Your task to perform on an android device: Search for "logitech g502" on newegg, select the first entry, and add it to the cart. Image 0: 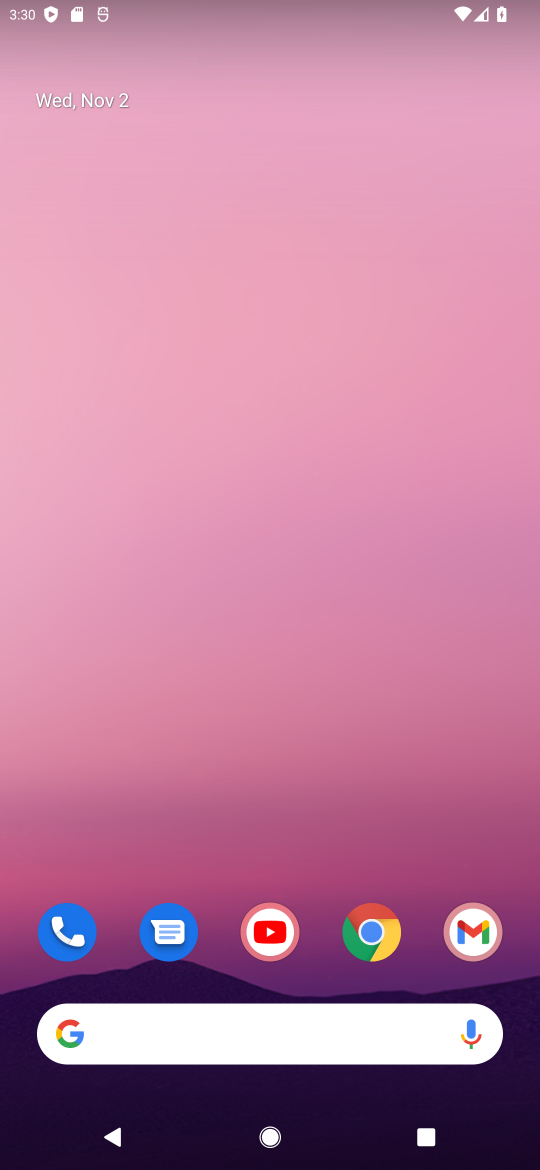
Step 0: click (372, 925)
Your task to perform on an android device: Search for "logitech g502" on newegg, select the first entry, and add it to the cart. Image 1: 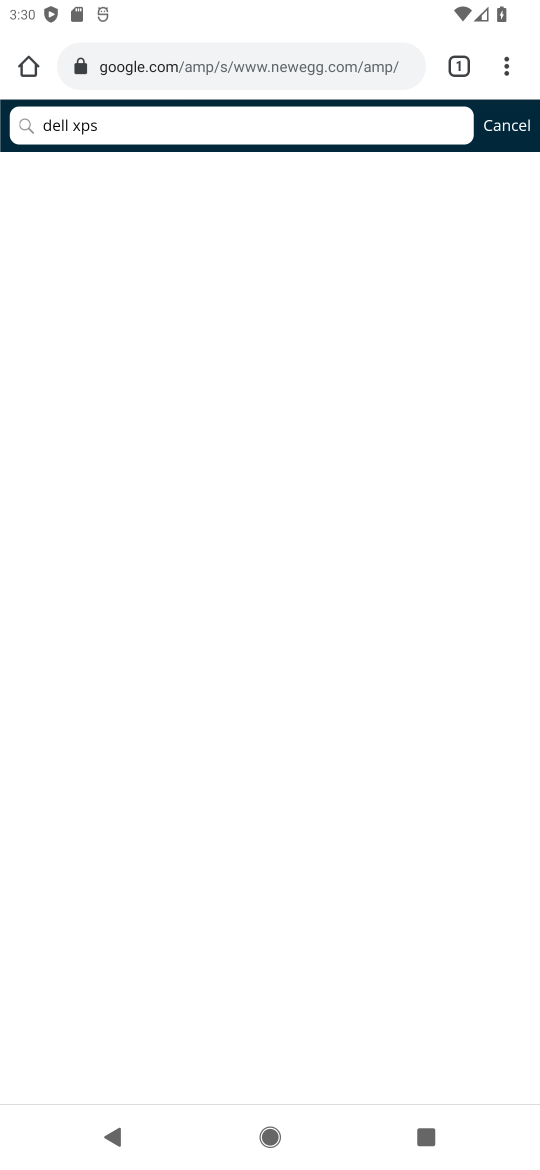
Step 1: click (507, 128)
Your task to perform on an android device: Search for "logitech g502" on newegg, select the first entry, and add it to the cart. Image 2: 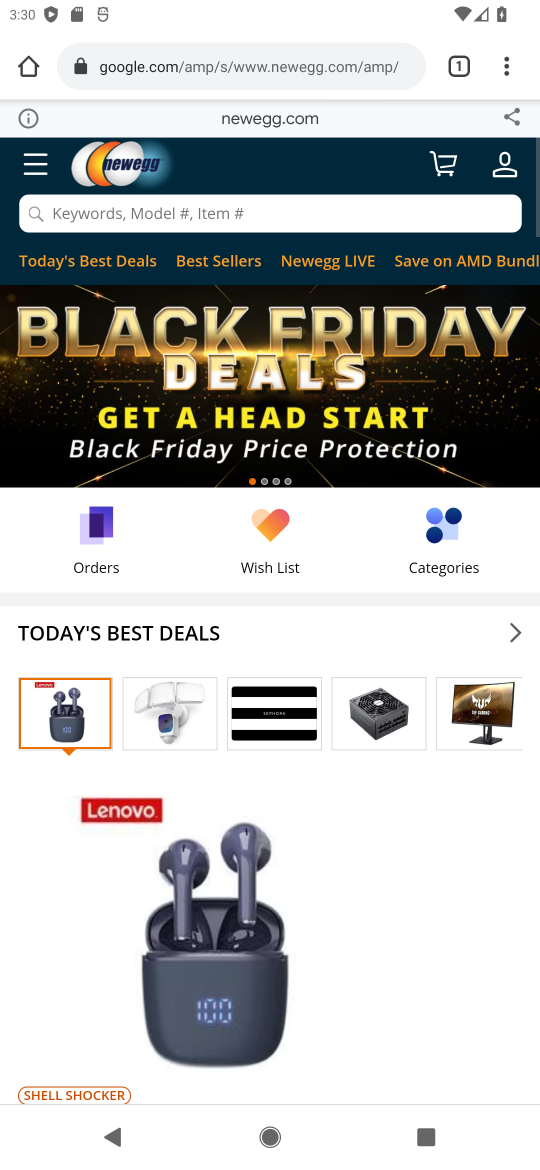
Step 2: click (349, 212)
Your task to perform on an android device: Search for "logitech g502" on newegg, select the first entry, and add it to the cart. Image 3: 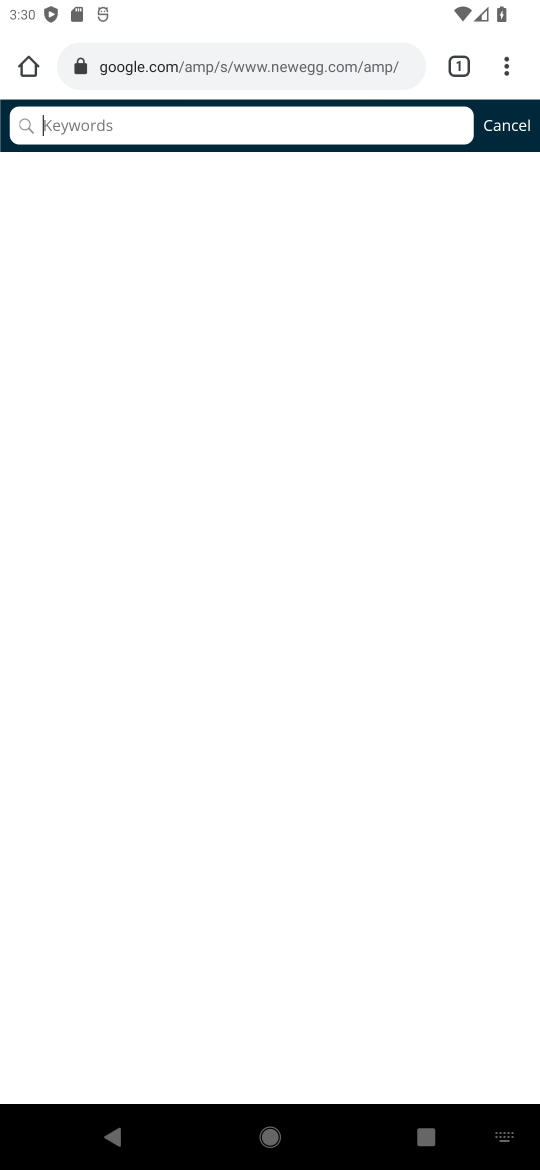
Step 3: type "logitech g502"
Your task to perform on an android device: Search for "logitech g502" on newegg, select the first entry, and add it to the cart. Image 4: 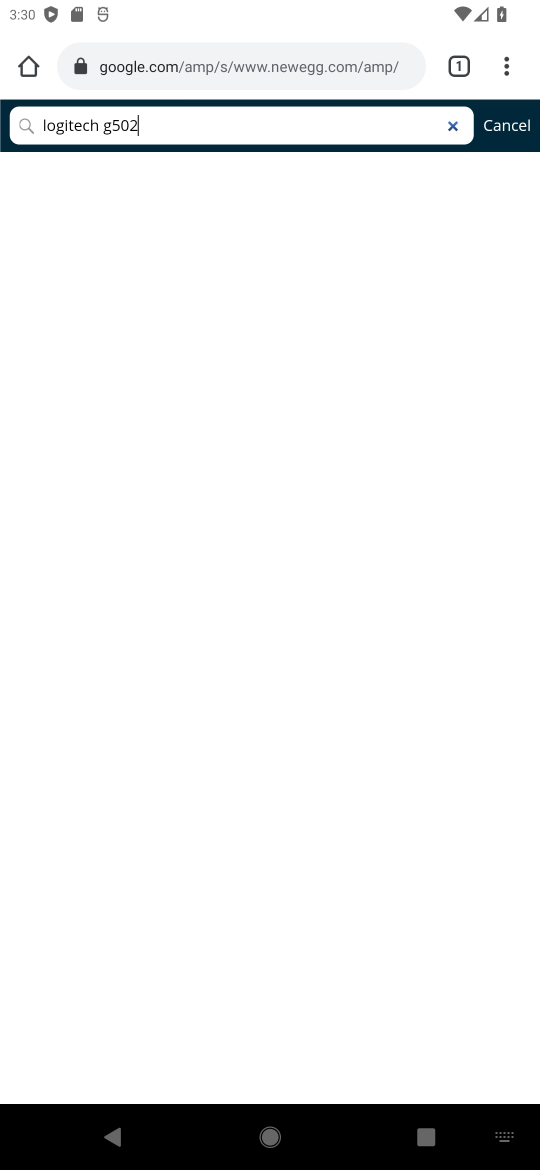
Step 4: press enter
Your task to perform on an android device: Search for "logitech g502" on newegg, select the first entry, and add it to the cart. Image 5: 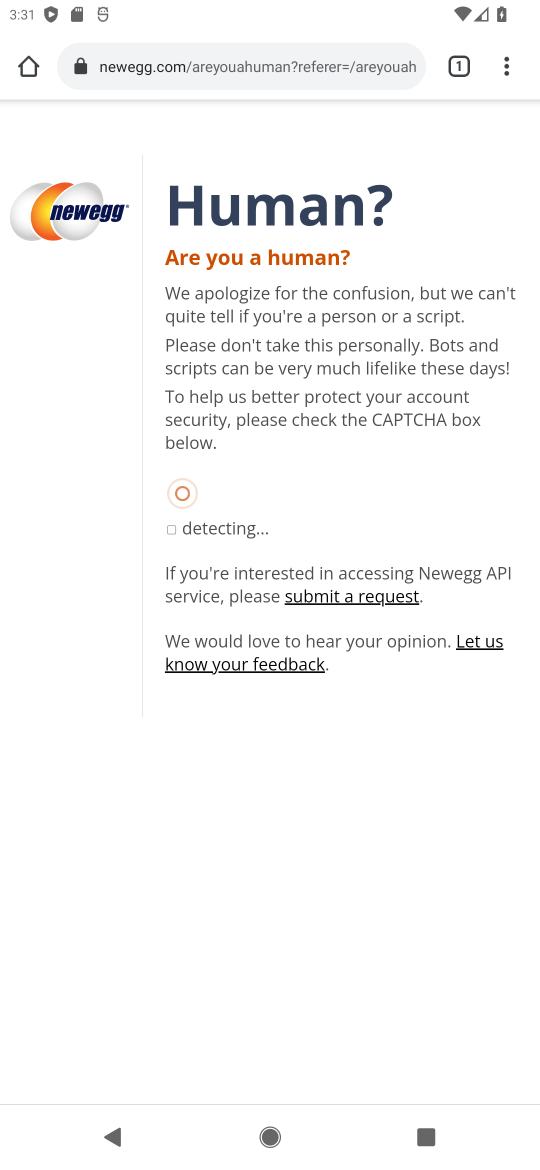
Step 5: press back button
Your task to perform on an android device: Search for "logitech g502" on newegg, select the first entry, and add it to the cart. Image 6: 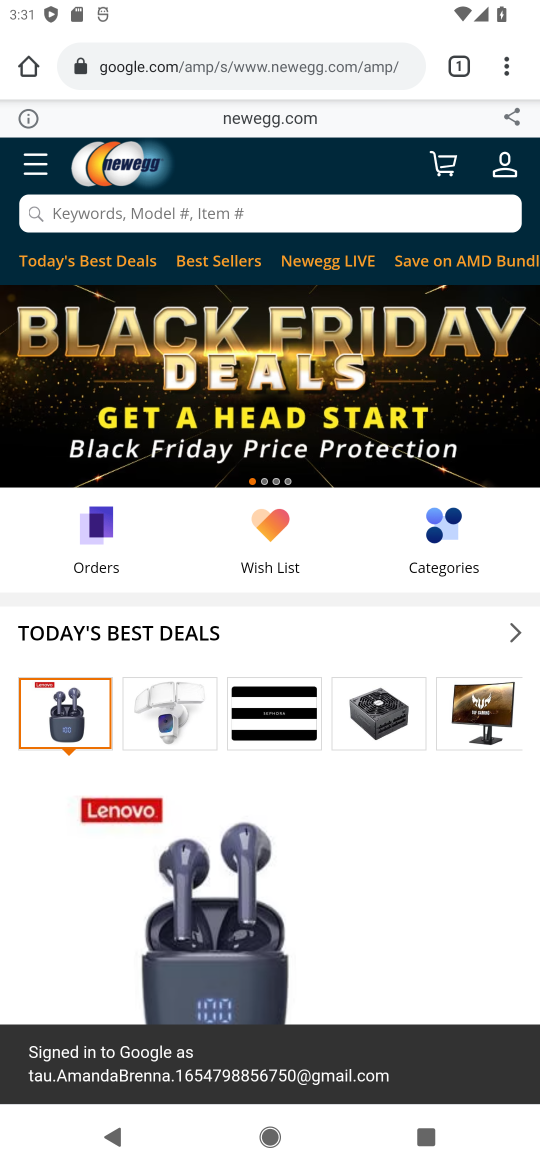
Step 6: click (345, 213)
Your task to perform on an android device: Search for "logitech g502" on newegg, select the first entry, and add it to the cart. Image 7: 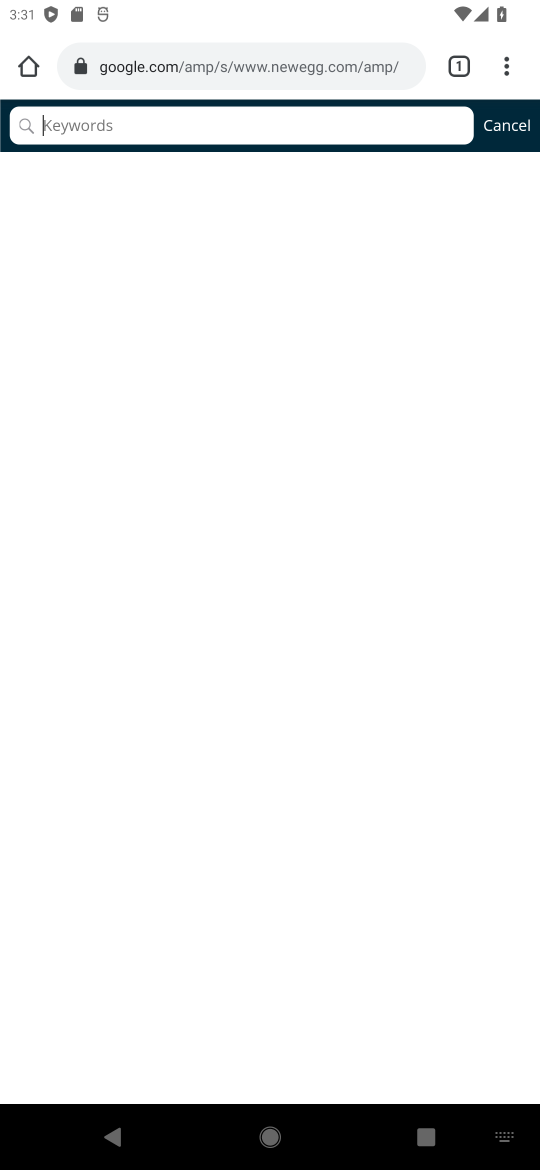
Step 7: type "logitech g502"
Your task to perform on an android device: Search for "logitech g502" on newegg, select the first entry, and add it to the cart. Image 8: 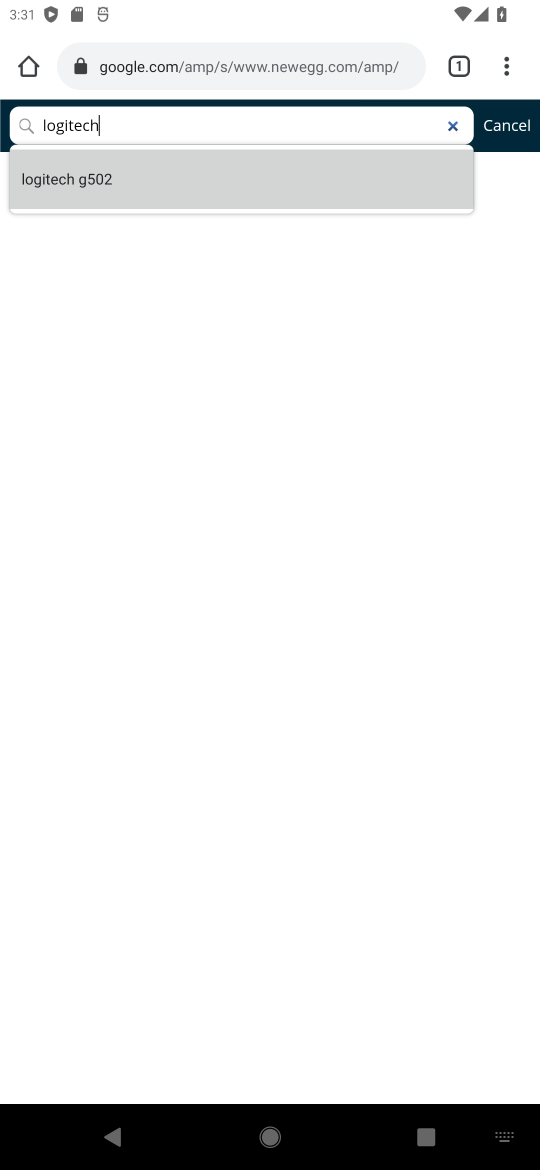
Step 8: press enter
Your task to perform on an android device: Search for "logitech g502" on newegg, select the first entry, and add it to the cart. Image 9: 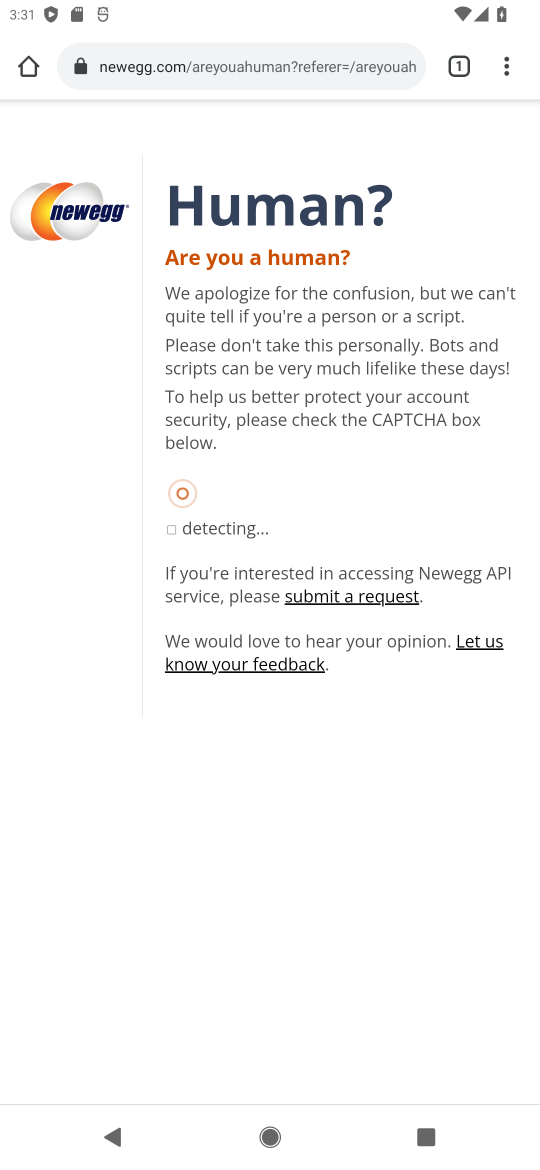
Step 9: task complete